Your task to perform on an android device: toggle data saver in the chrome app Image 0: 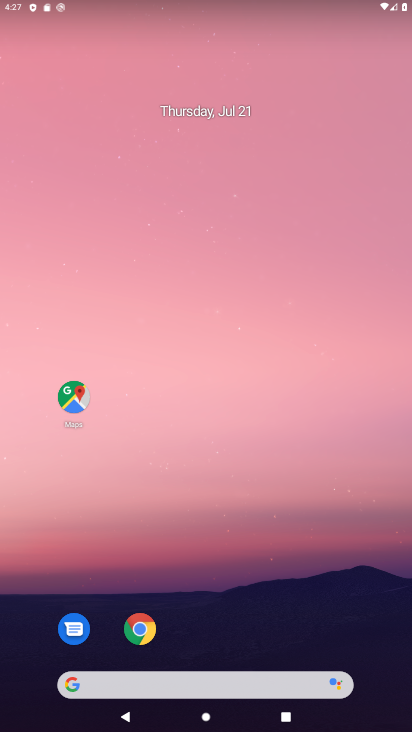
Step 0: press home button
Your task to perform on an android device: toggle data saver in the chrome app Image 1: 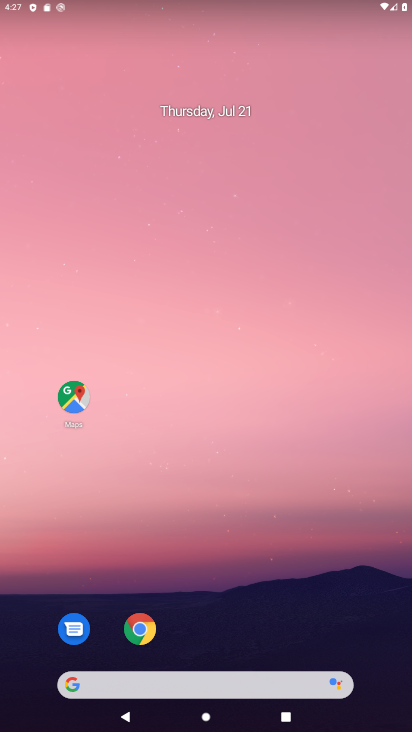
Step 1: click (132, 624)
Your task to perform on an android device: toggle data saver in the chrome app Image 2: 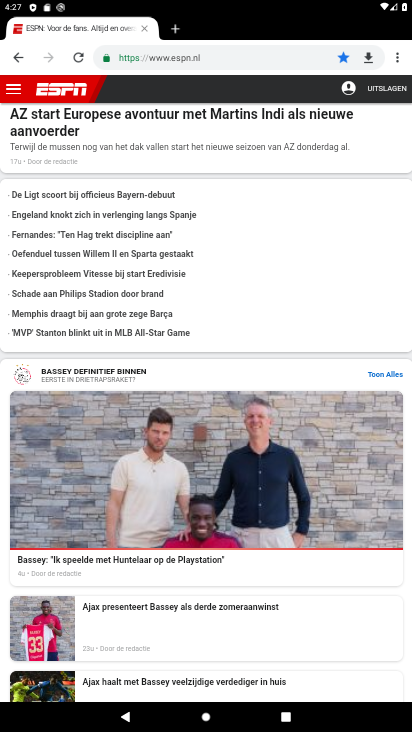
Step 2: click (400, 56)
Your task to perform on an android device: toggle data saver in the chrome app Image 3: 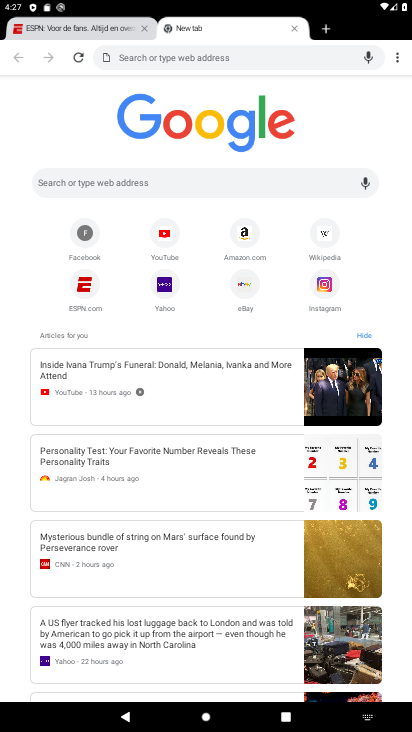
Step 3: click (400, 58)
Your task to perform on an android device: toggle data saver in the chrome app Image 4: 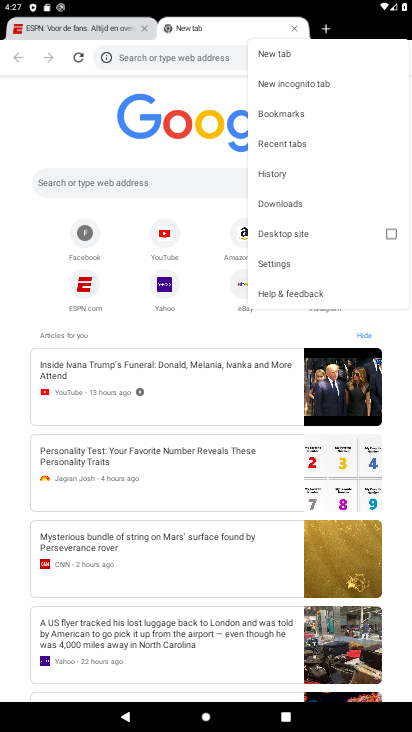
Step 4: click (299, 259)
Your task to perform on an android device: toggle data saver in the chrome app Image 5: 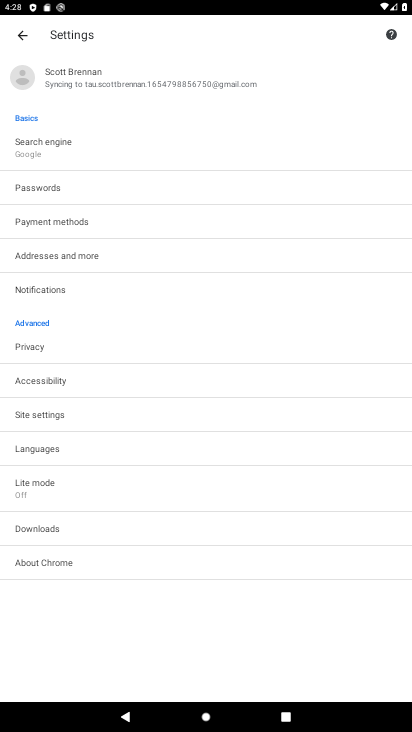
Step 5: click (52, 487)
Your task to perform on an android device: toggle data saver in the chrome app Image 6: 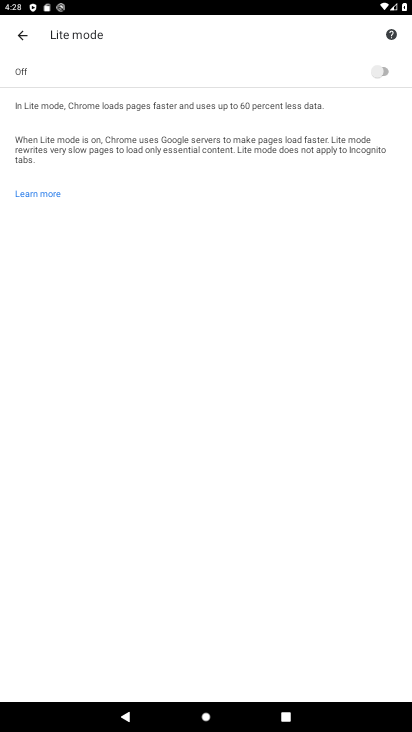
Step 6: click (388, 63)
Your task to perform on an android device: toggle data saver in the chrome app Image 7: 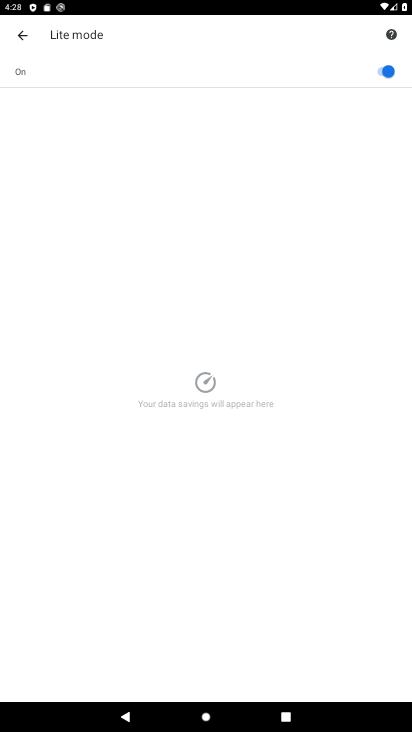
Step 7: task complete